Your task to perform on an android device: turn off wifi Image 0: 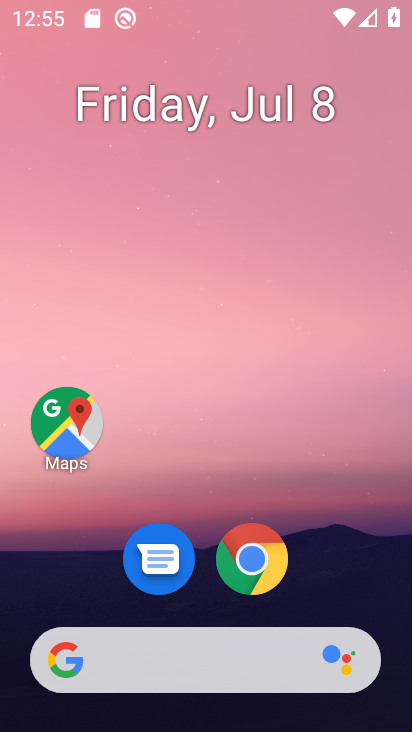
Step 0: drag from (186, 617) to (148, 43)
Your task to perform on an android device: turn off wifi Image 1: 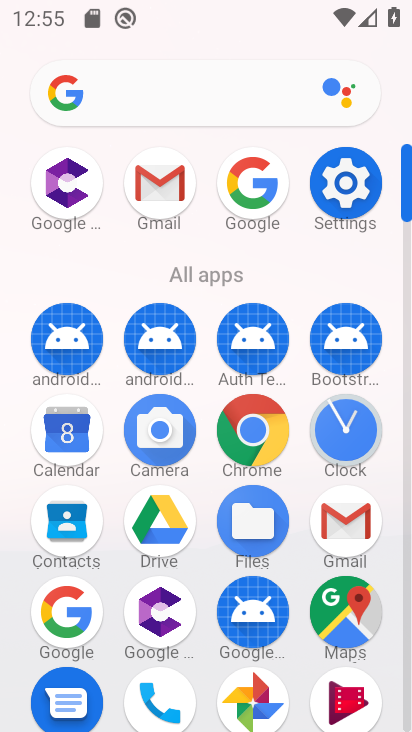
Step 1: click (346, 185)
Your task to perform on an android device: turn off wifi Image 2: 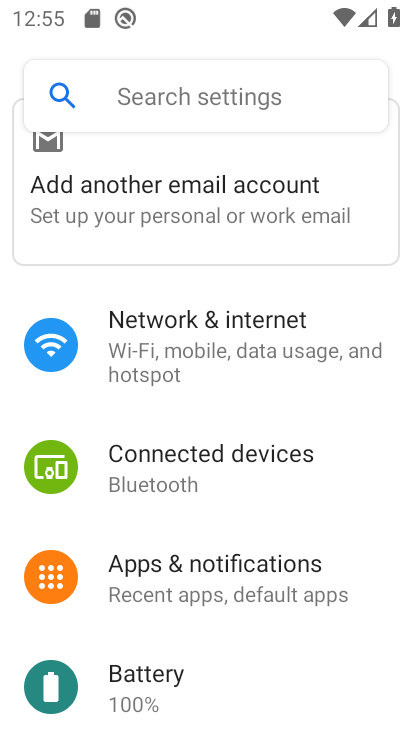
Step 2: click (133, 334)
Your task to perform on an android device: turn off wifi Image 3: 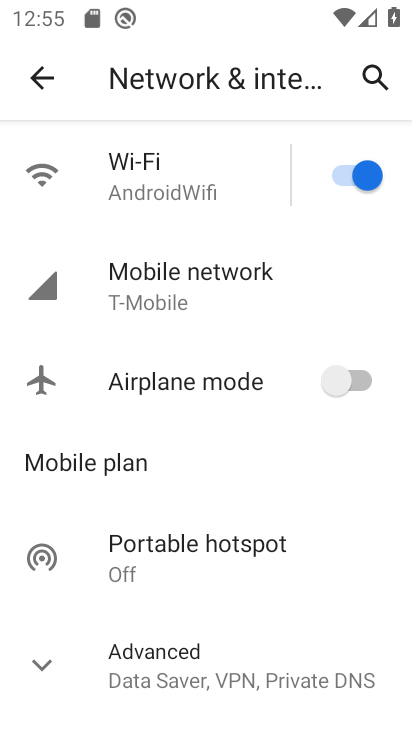
Step 3: click (168, 179)
Your task to perform on an android device: turn off wifi Image 4: 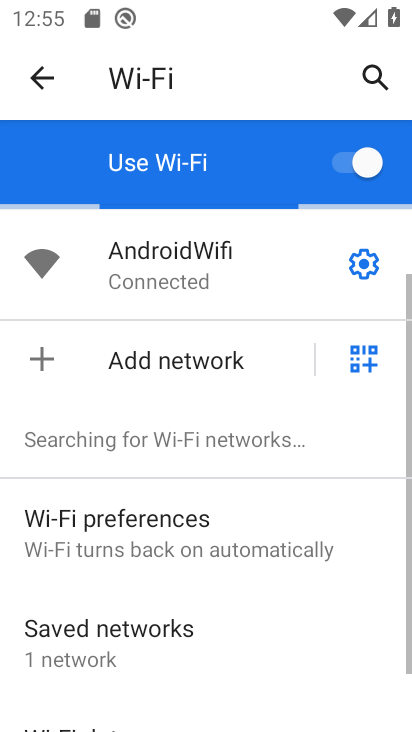
Step 4: click (329, 176)
Your task to perform on an android device: turn off wifi Image 5: 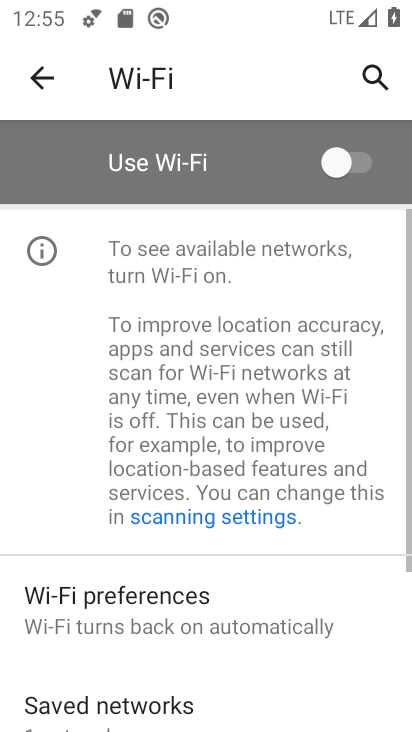
Step 5: task complete